Your task to perform on an android device: find which apps use the phone's location Image 0: 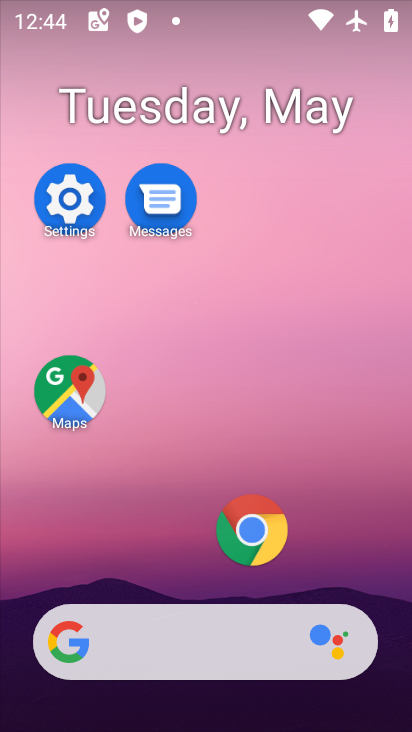
Step 0: drag from (258, 436) to (381, 103)
Your task to perform on an android device: find which apps use the phone's location Image 1: 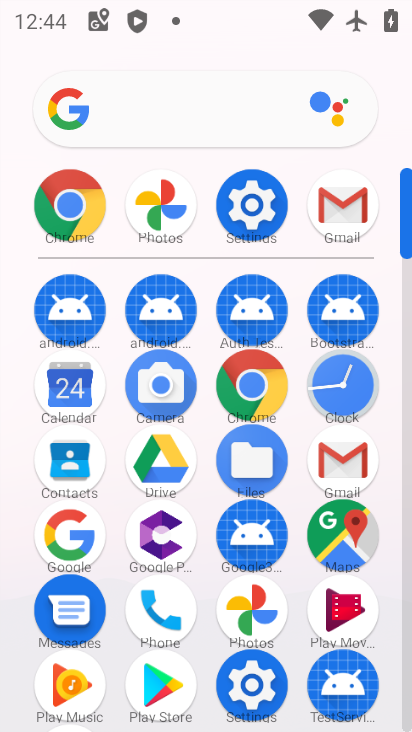
Step 1: drag from (206, 258) to (220, 114)
Your task to perform on an android device: find which apps use the phone's location Image 2: 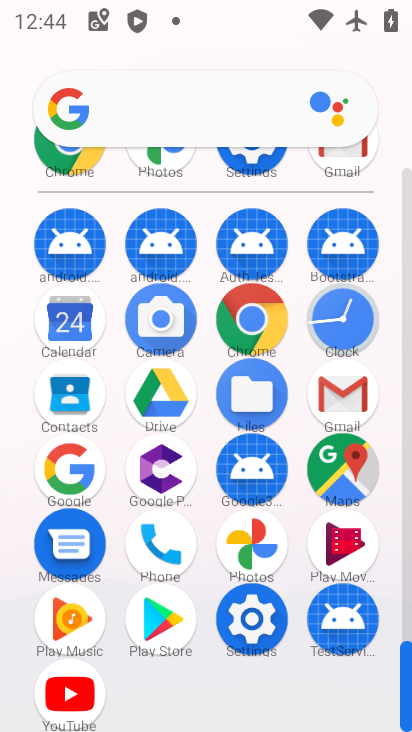
Step 2: click (249, 626)
Your task to perform on an android device: find which apps use the phone's location Image 3: 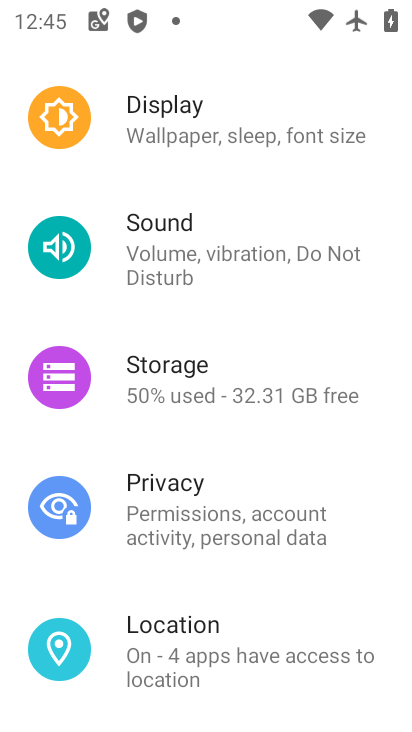
Step 3: click (239, 638)
Your task to perform on an android device: find which apps use the phone's location Image 4: 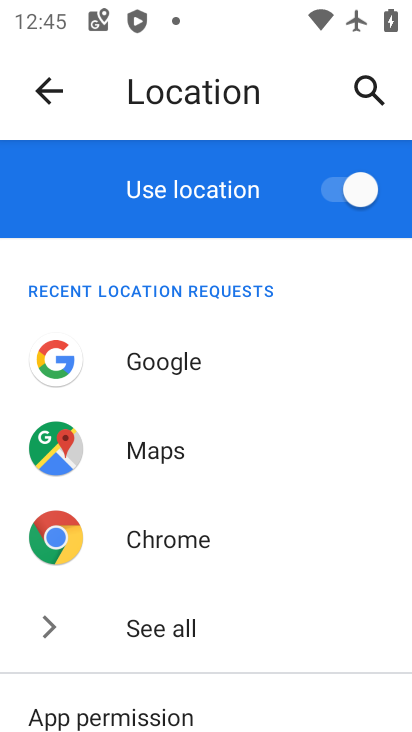
Step 4: drag from (230, 627) to (260, 376)
Your task to perform on an android device: find which apps use the phone's location Image 5: 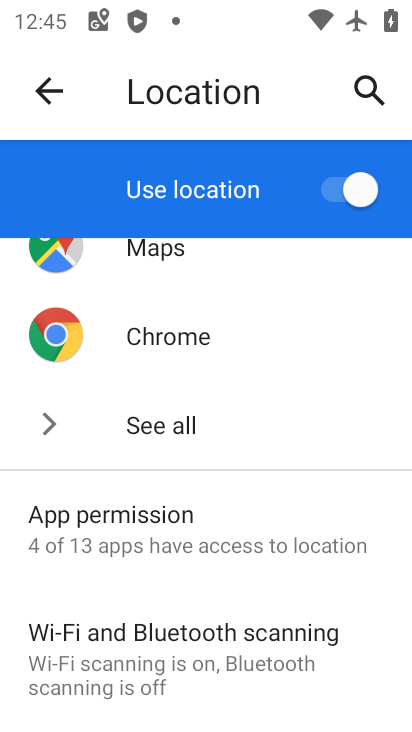
Step 5: click (213, 532)
Your task to perform on an android device: find which apps use the phone's location Image 6: 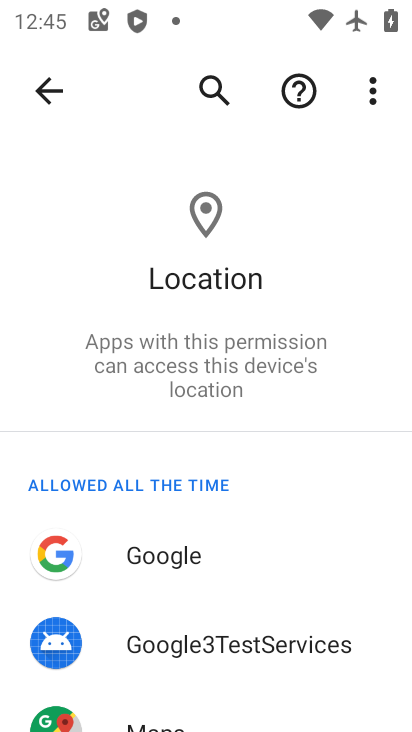
Step 6: task complete